Your task to perform on an android device: set an alarm Image 0: 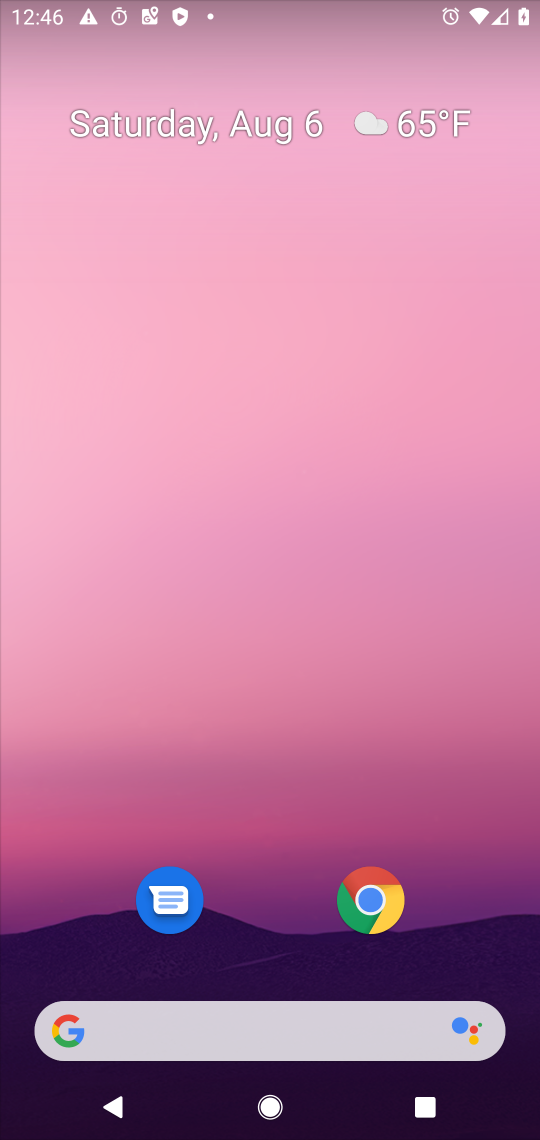
Step 0: drag from (256, 906) to (283, 96)
Your task to perform on an android device: set an alarm Image 1: 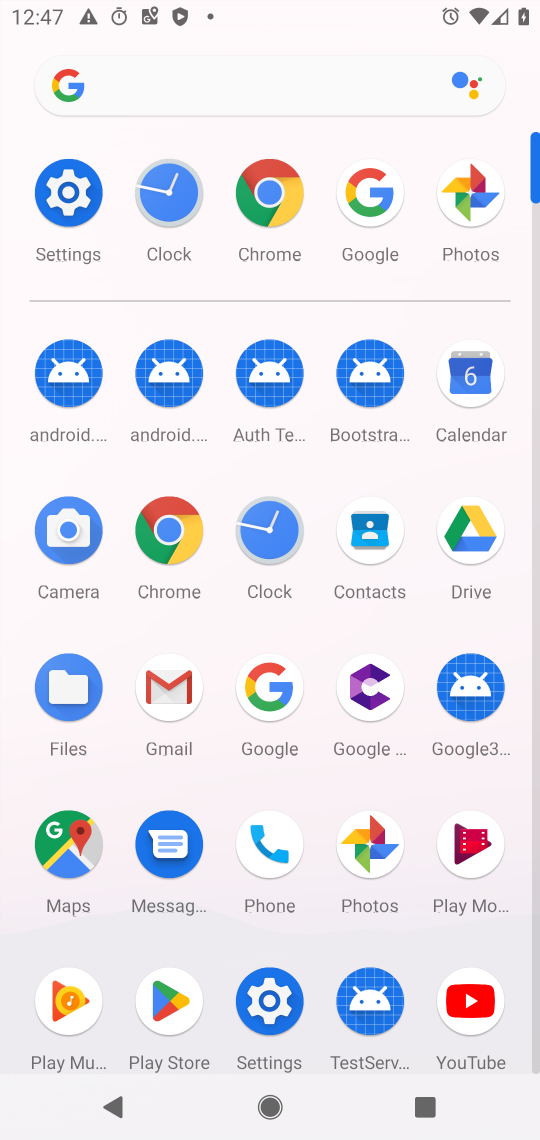
Step 1: click (264, 524)
Your task to perform on an android device: set an alarm Image 2: 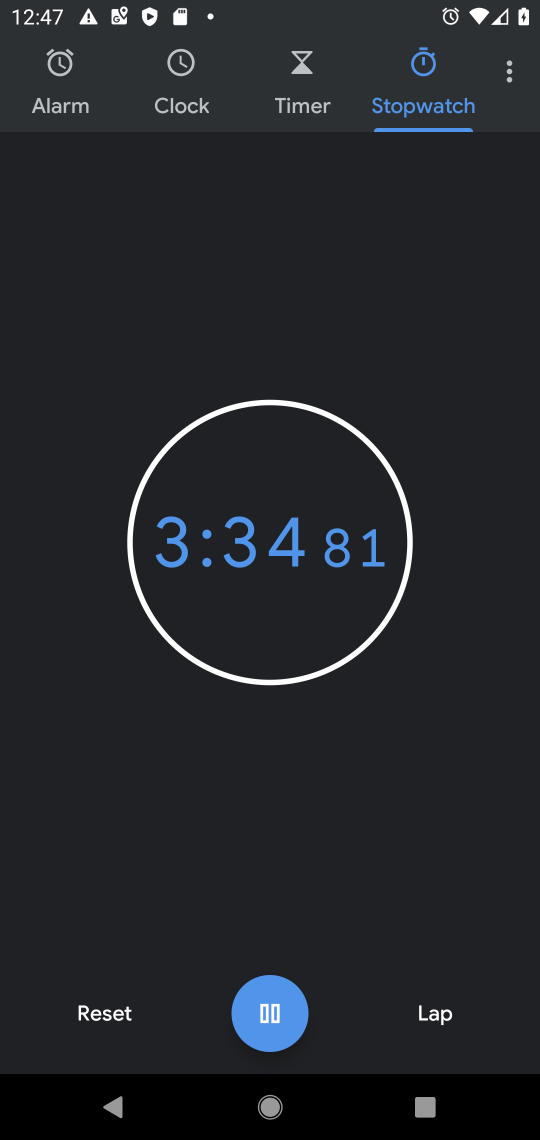
Step 2: click (58, 80)
Your task to perform on an android device: set an alarm Image 3: 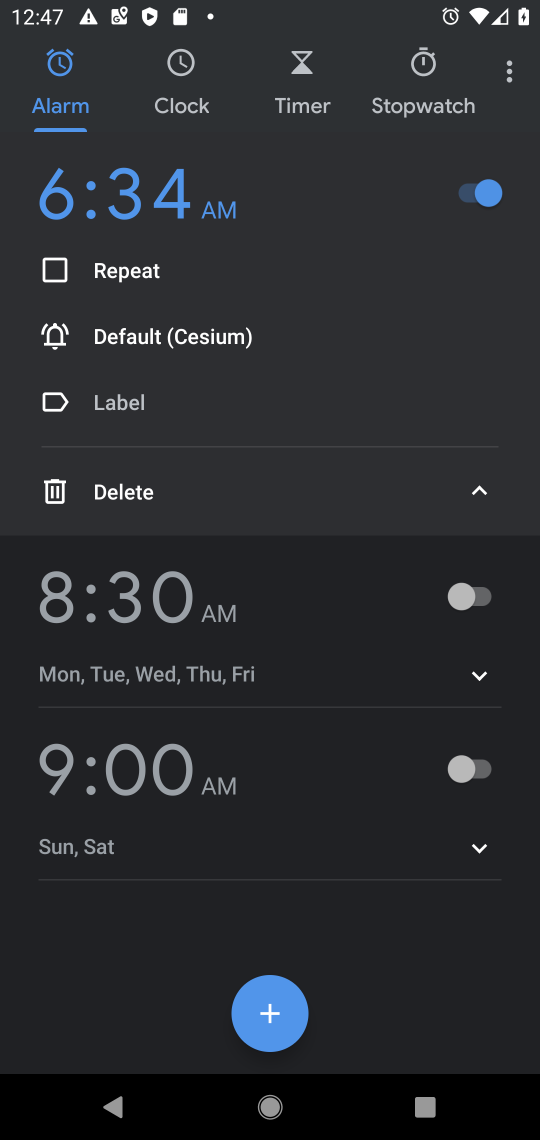
Step 3: click (272, 1011)
Your task to perform on an android device: set an alarm Image 4: 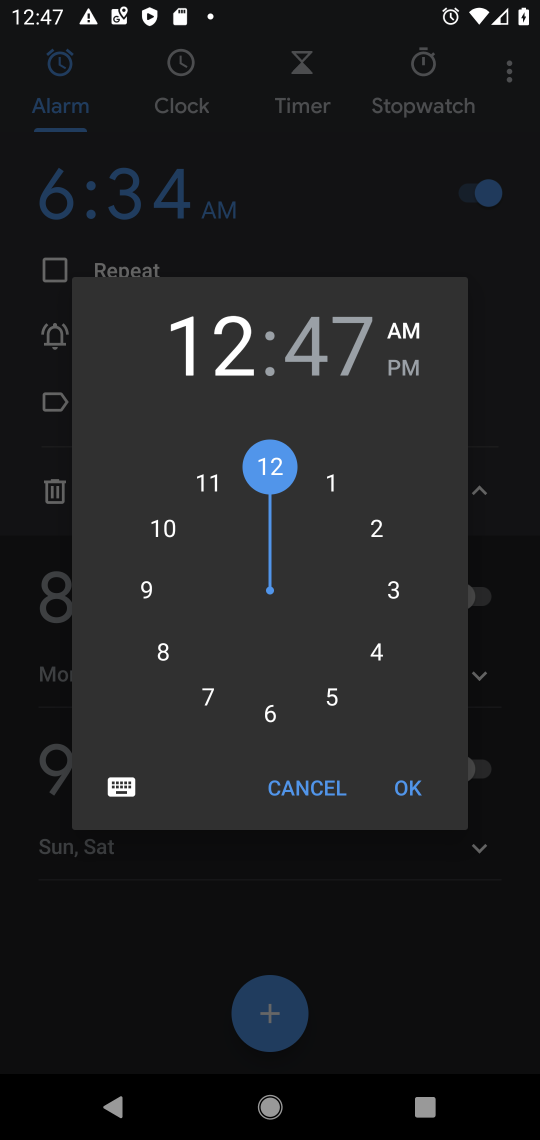
Step 4: click (209, 695)
Your task to perform on an android device: set an alarm Image 5: 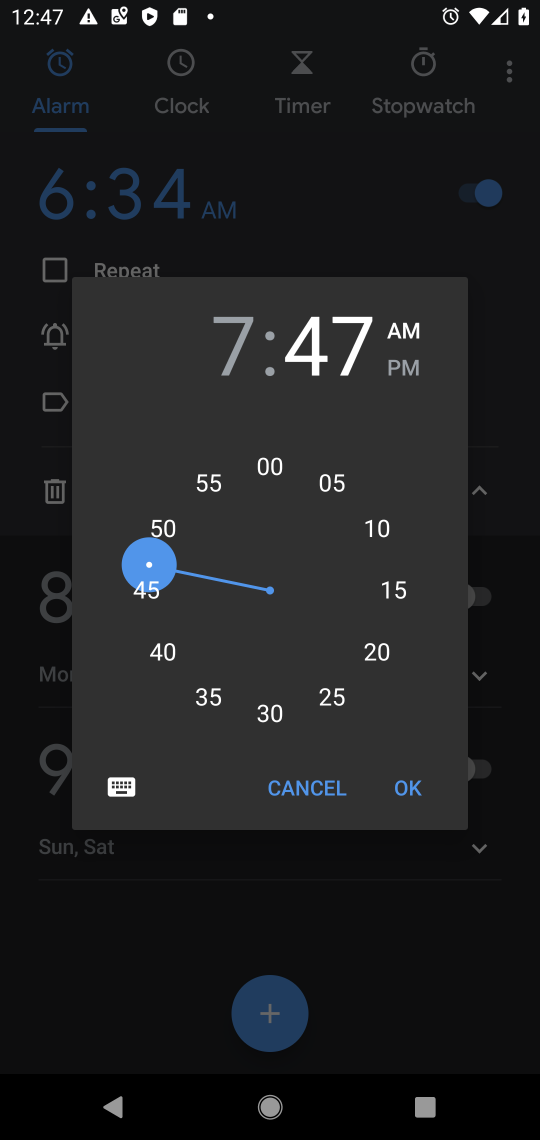
Step 5: click (409, 781)
Your task to perform on an android device: set an alarm Image 6: 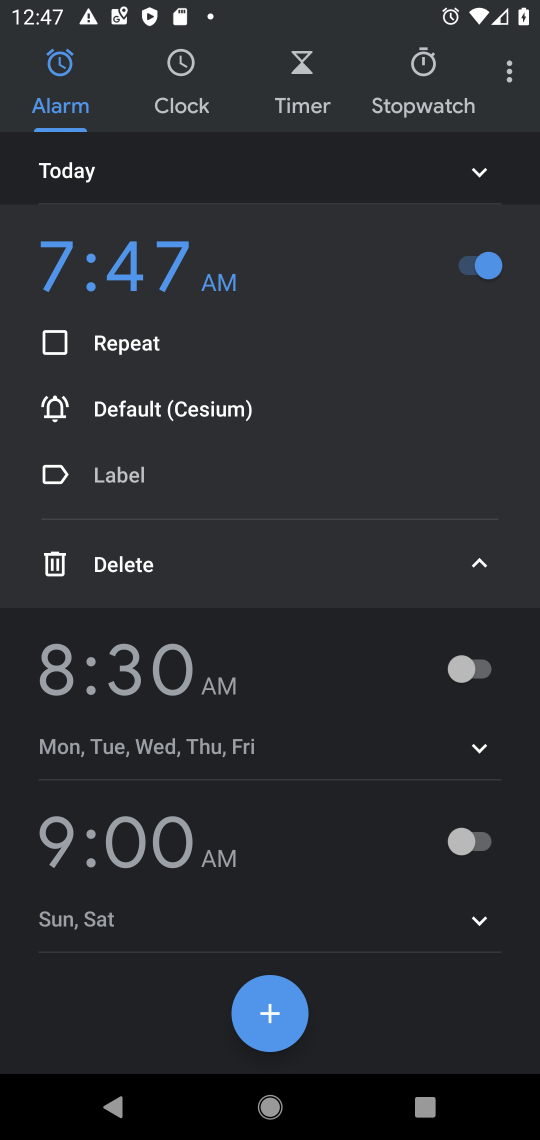
Step 6: task complete